Your task to perform on an android device: clear all cookies in the chrome app Image 0: 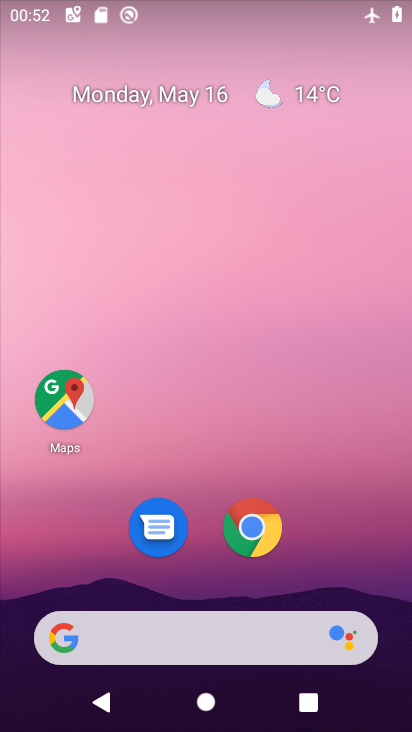
Step 0: click (275, 533)
Your task to perform on an android device: clear all cookies in the chrome app Image 1: 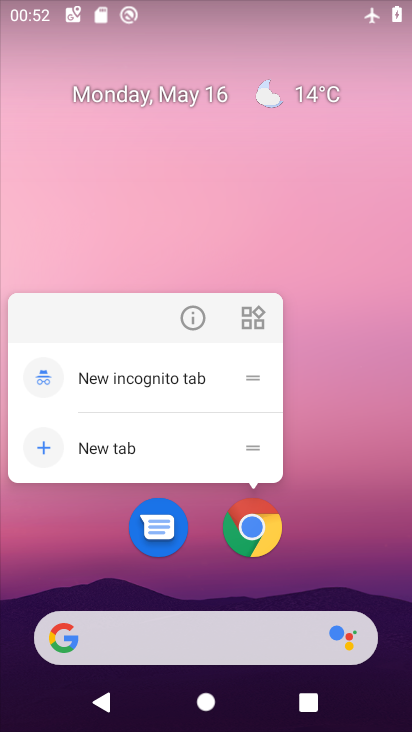
Step 1: click (259, 524)
Your task to perform on an android device: clear all cookies in the chrome app Image 2: 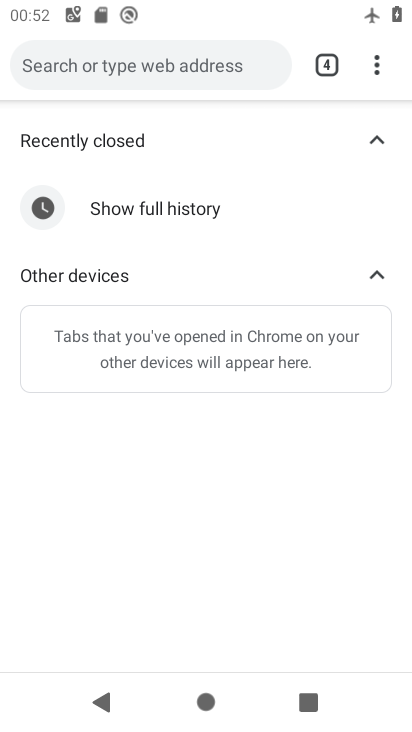
Step 2: click (374, 59)
Your task to perform on an android device: clear all cookies in the chrome app Image 3: 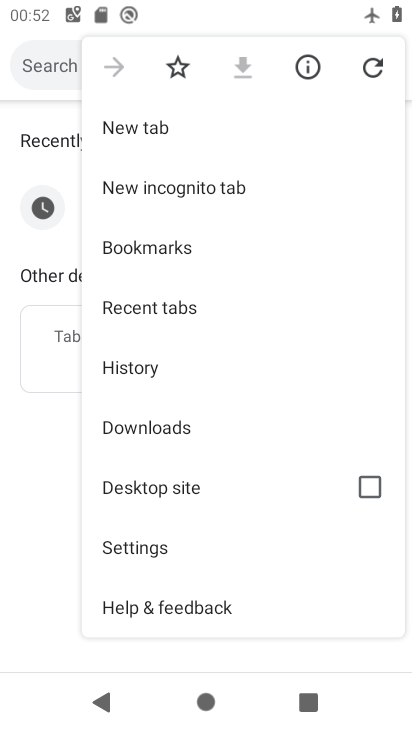
Step 3: click (150, 372)
Your task to perform on an android device: clear all cookies in the chrome app Image 4: 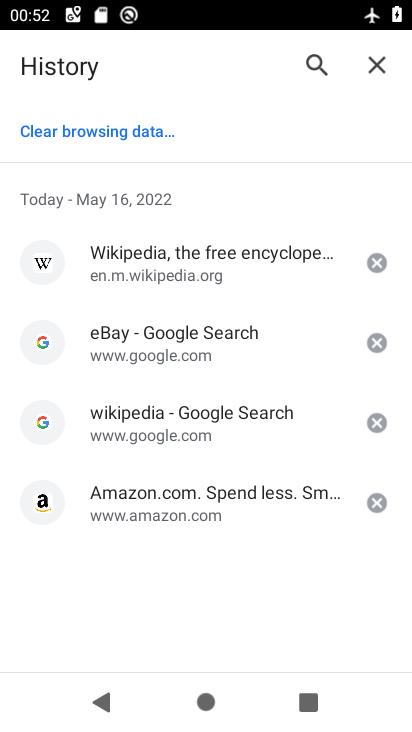
Step 4: click (117, 138)
Your task to perform on an android device: clear all cookies in the chrome app Image 5: 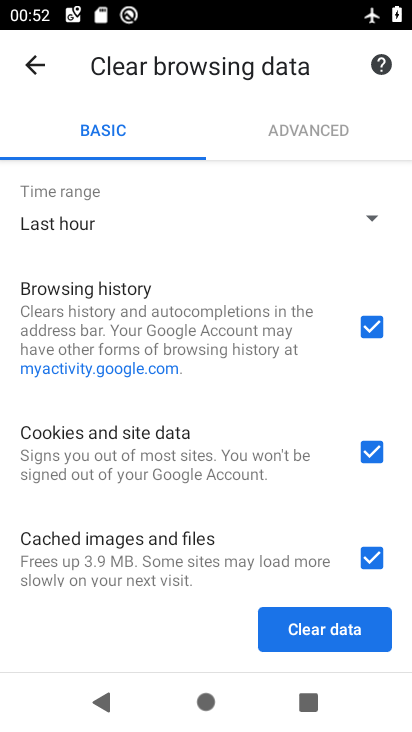
Step 5: click (378, 317)
Your task to perform on an android device: clear all cookies in the chrome app Image 6: 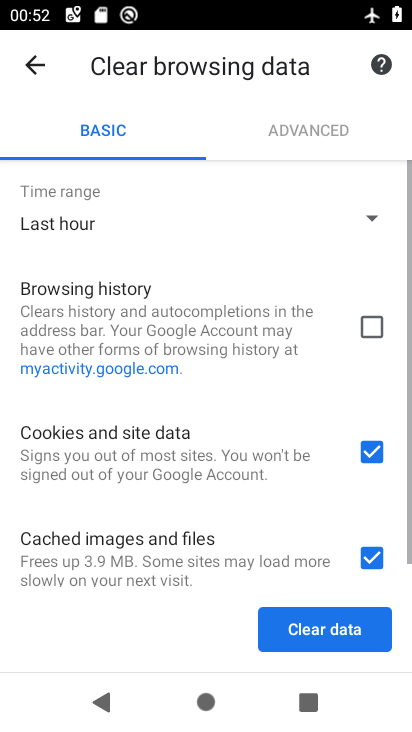
Step 6: click (364, 556)
Your task to perform on an android device: clear all cookies in the chrome app Image 7: 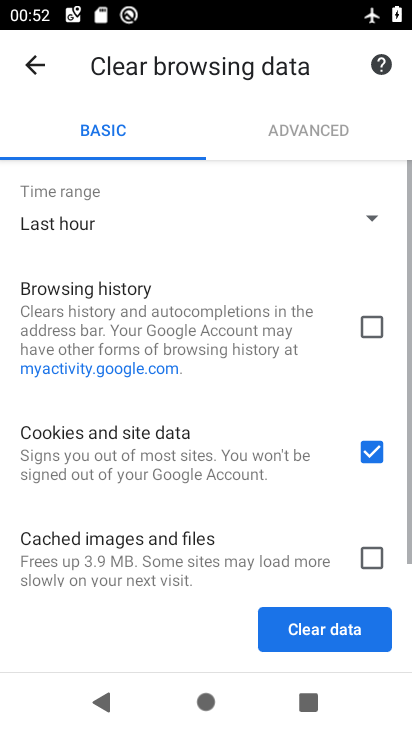
Step 7: click (331, 640)
Your task to perform on an android device: clear all cookies in the chrome app Image 8: 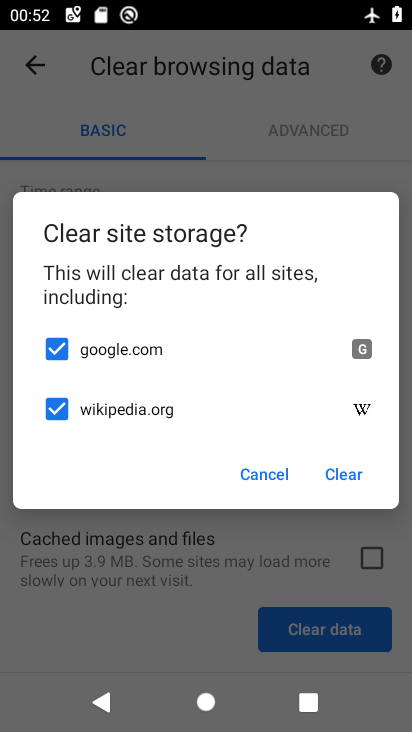
Step 8: click (352, 469)
Your task to perform on an android device: clear all cookies in the chrome app Image 9: 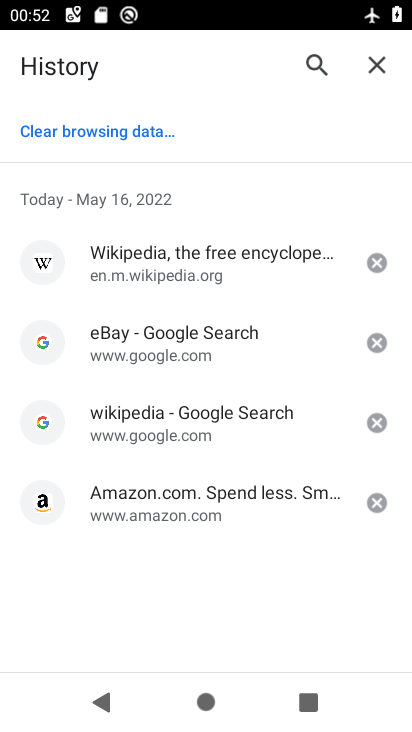
Step 9: task complete